Your task to perform on an android device: Open calendar and show me the second week of next month Image 0: 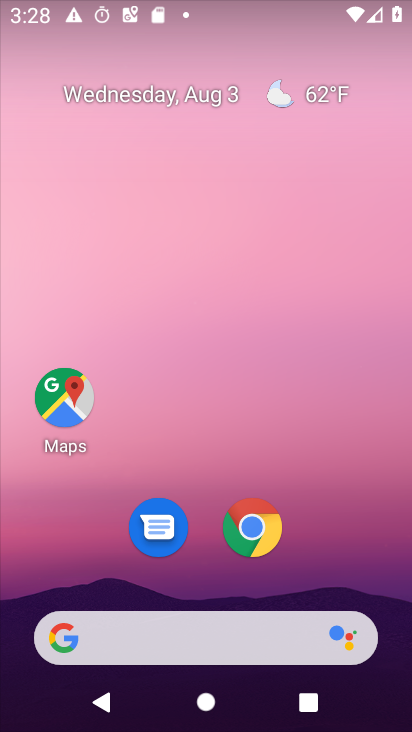
Step 0: drag from (328, 504) to (323, 66)
Your task to perform on an android device: Open calendar and show me the second week of next month Image 1: 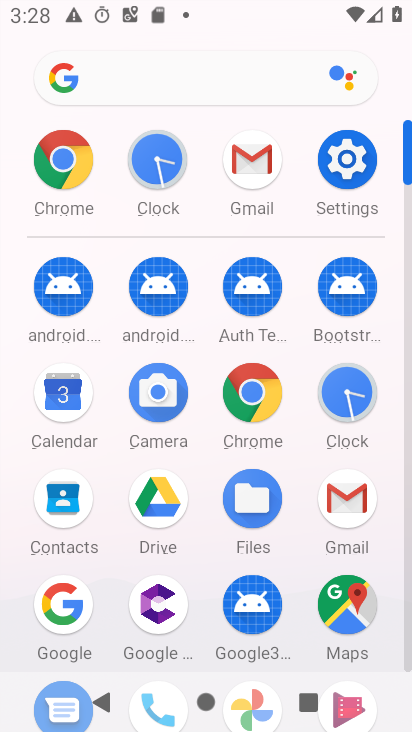
Step 1: click (60, 388)
Your task to perform on an android device: Open calendar and show me the second week of next month Image 2: 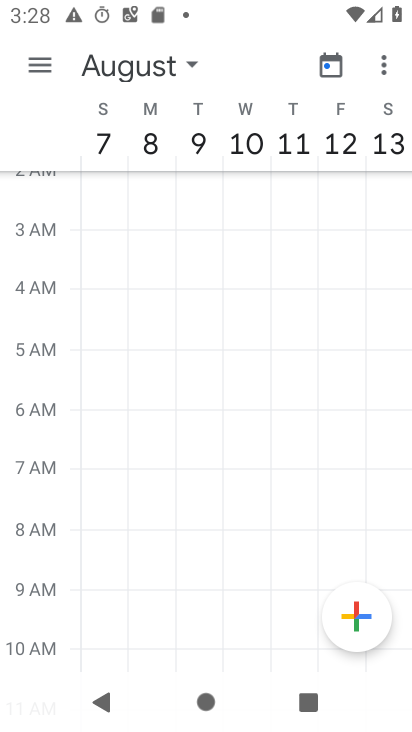
Step 2: click (85, 63)
Your task to perform on an android device: Open calendar and show me the second week of next month Image 3: 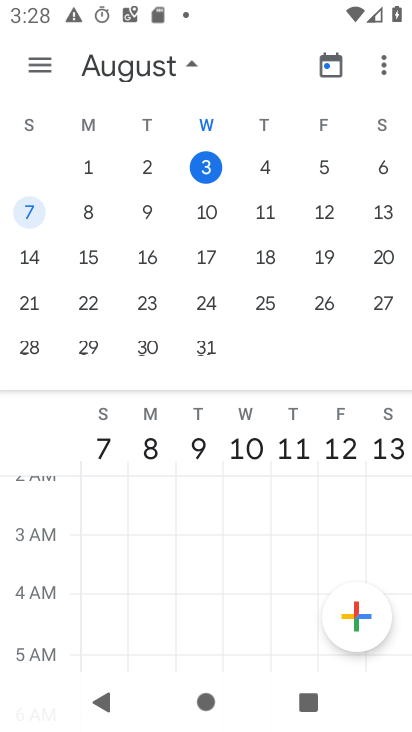
Step 3: drag from (364, 205) to (16, 203)
Your task to perform on an android device: Open calendar and show me the second week of next month Image 4: 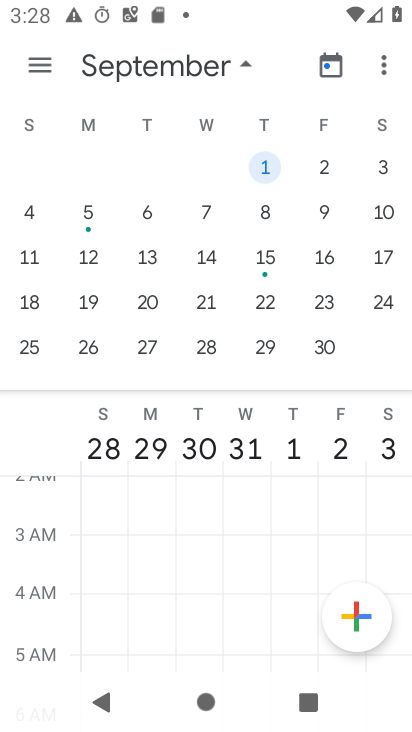
Step 4: click (144, 260)
Your task to perform on an android device: Open calendar and show me the second week of next month Image 5: 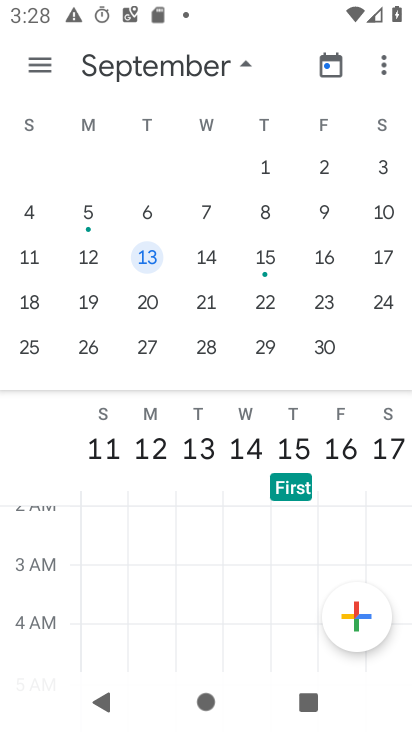
Step 5: task complete